Your task to perform on an android device: Add razer kraken to the cart on walmart, then select checkout. Image 0: 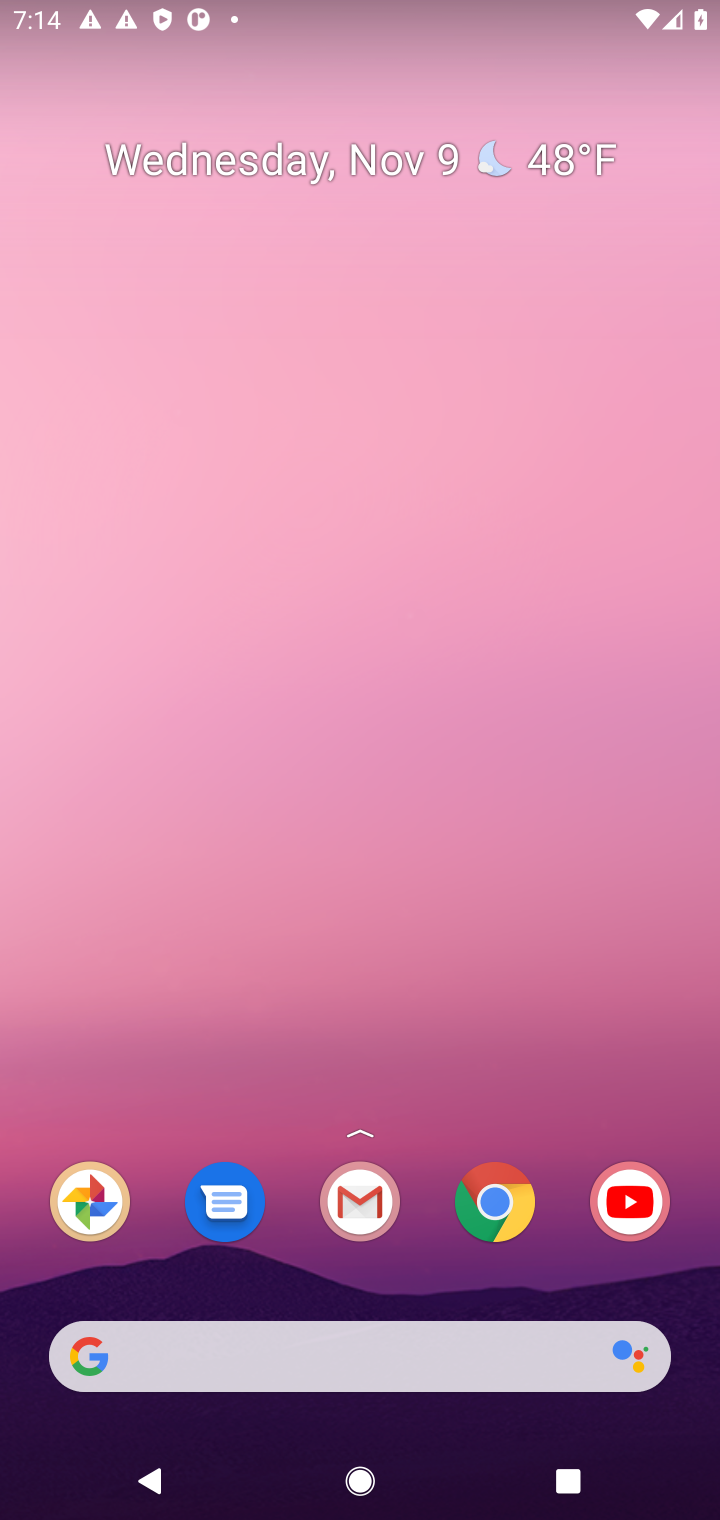
Step 0: click (501, 1219)
Your task to perform on an android device: Add razer kraken to the cart on walmart, then select checkout. Image 1: 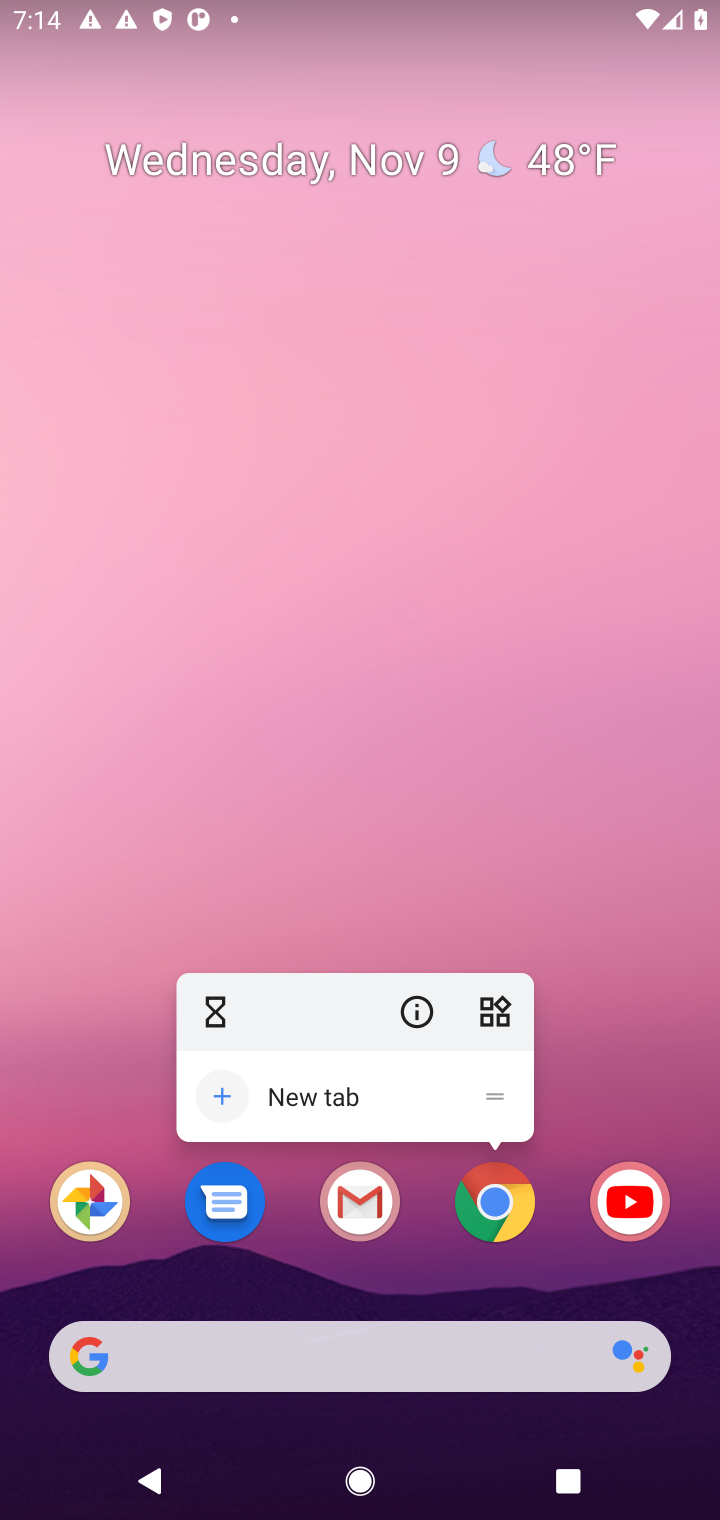
Step 1: click (507, 1211)
Your task to perform on an android device: Add razer kraken to the cart on walmart, then select checkout. Image 2: 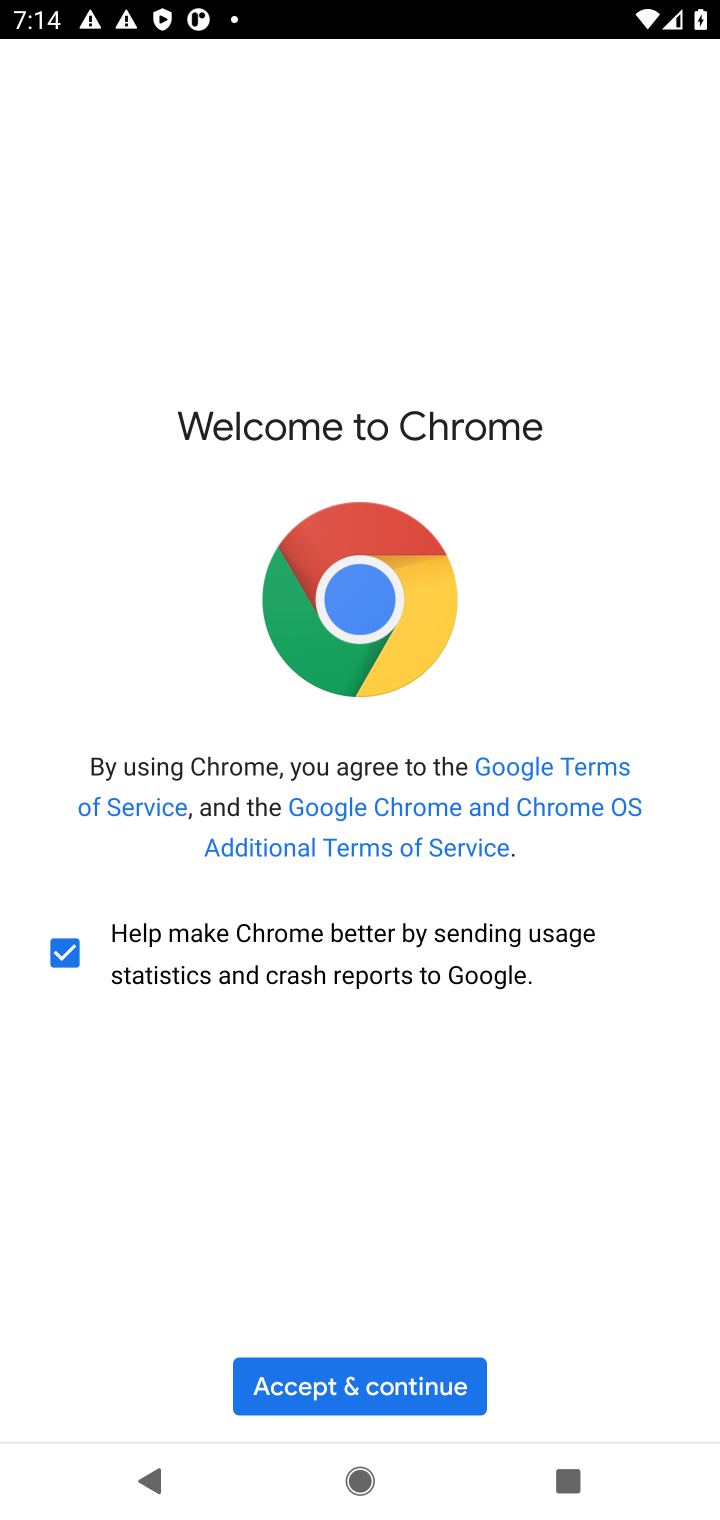
Step 2: click (318, 1401)
Your task to perform on an android device: Add razer kraken to the cart on walmart, then select checkout. Image 3: 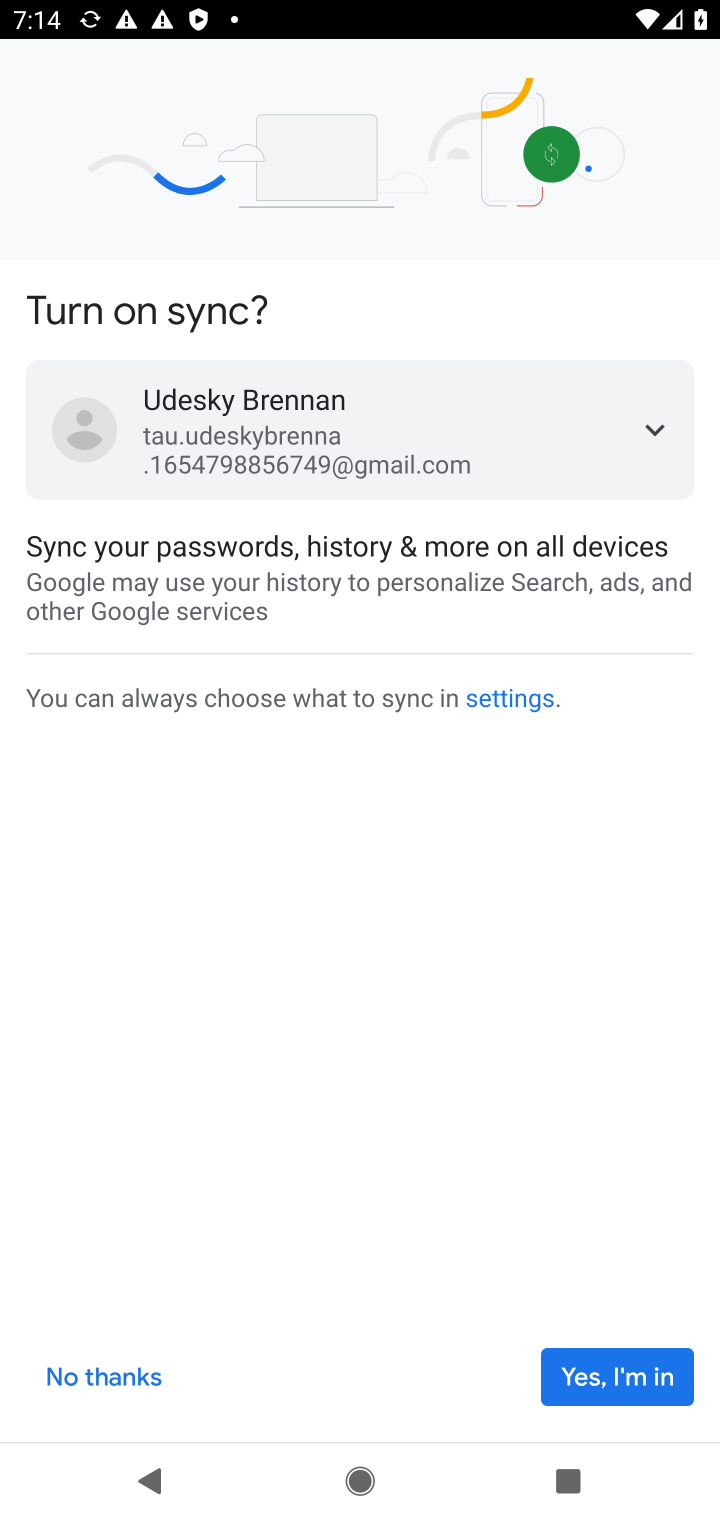
Step 3: click (605, 1367)
Your task to perform on an android device: Add razer kraken to the cart on walmart, then select checkout. Image 4: 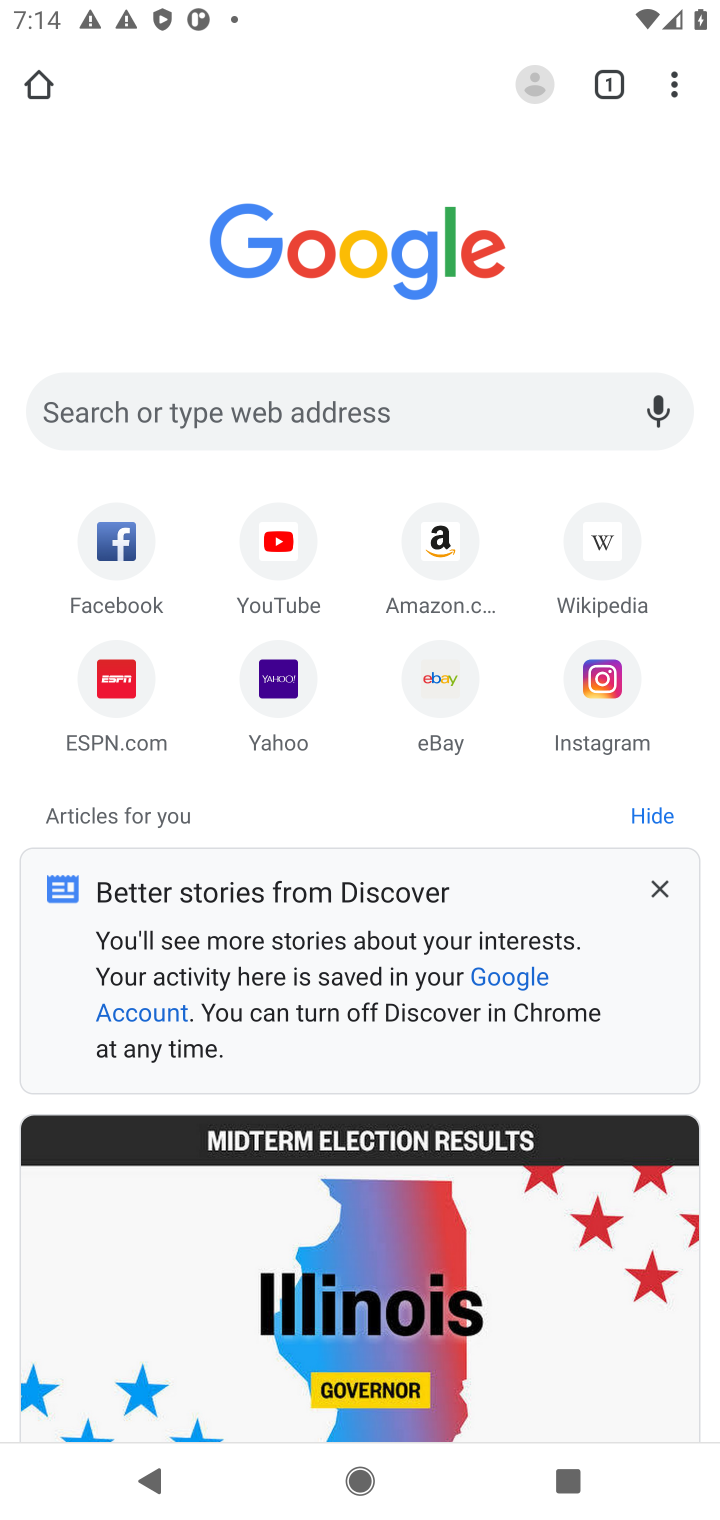
Step 4: click (293, 417)
Your task to perform on an android device: Add razer kraken to the cart on walmart, then select checkout. Image 5: 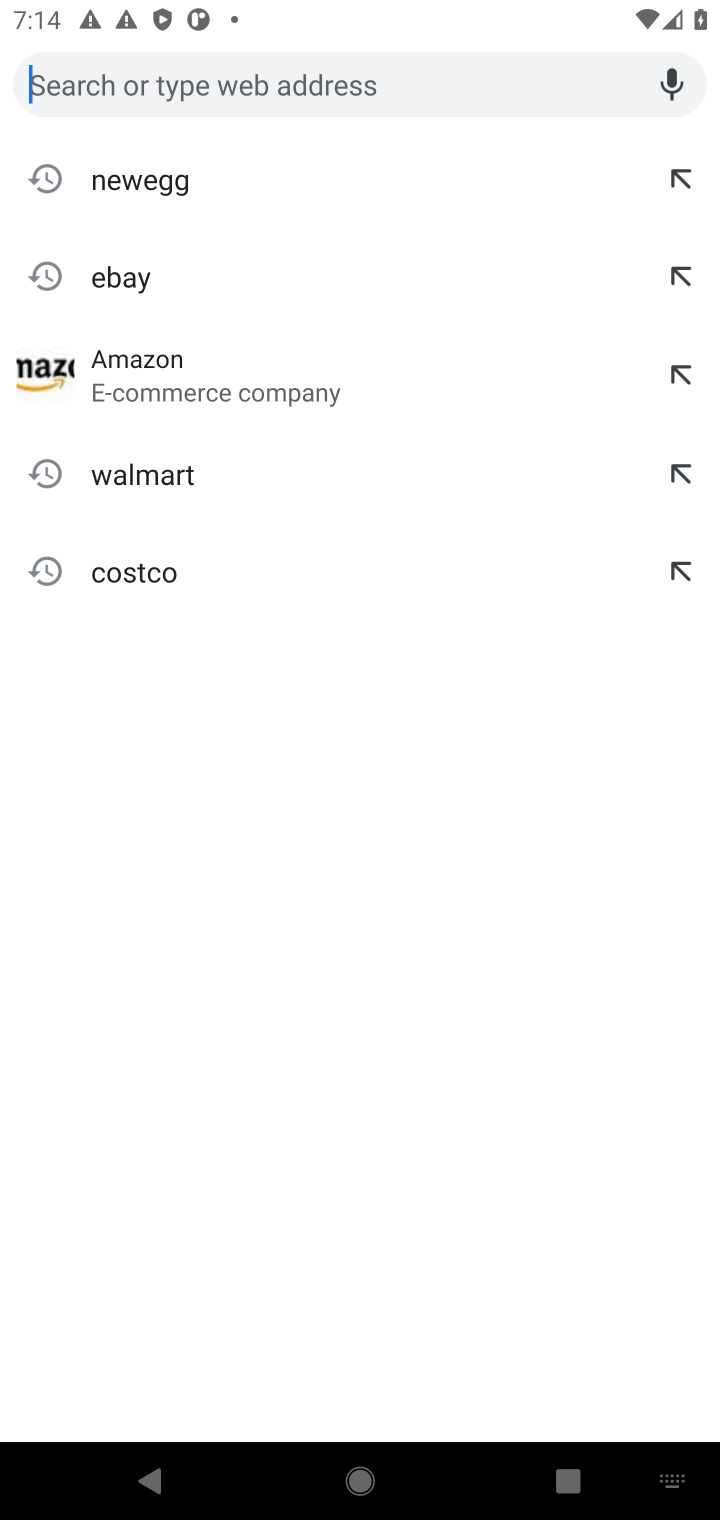
Step 5: click (140, 478)
Your task to perform on an android device: Add razer kraken to the cart on walmart, then select checkout. Image 6: 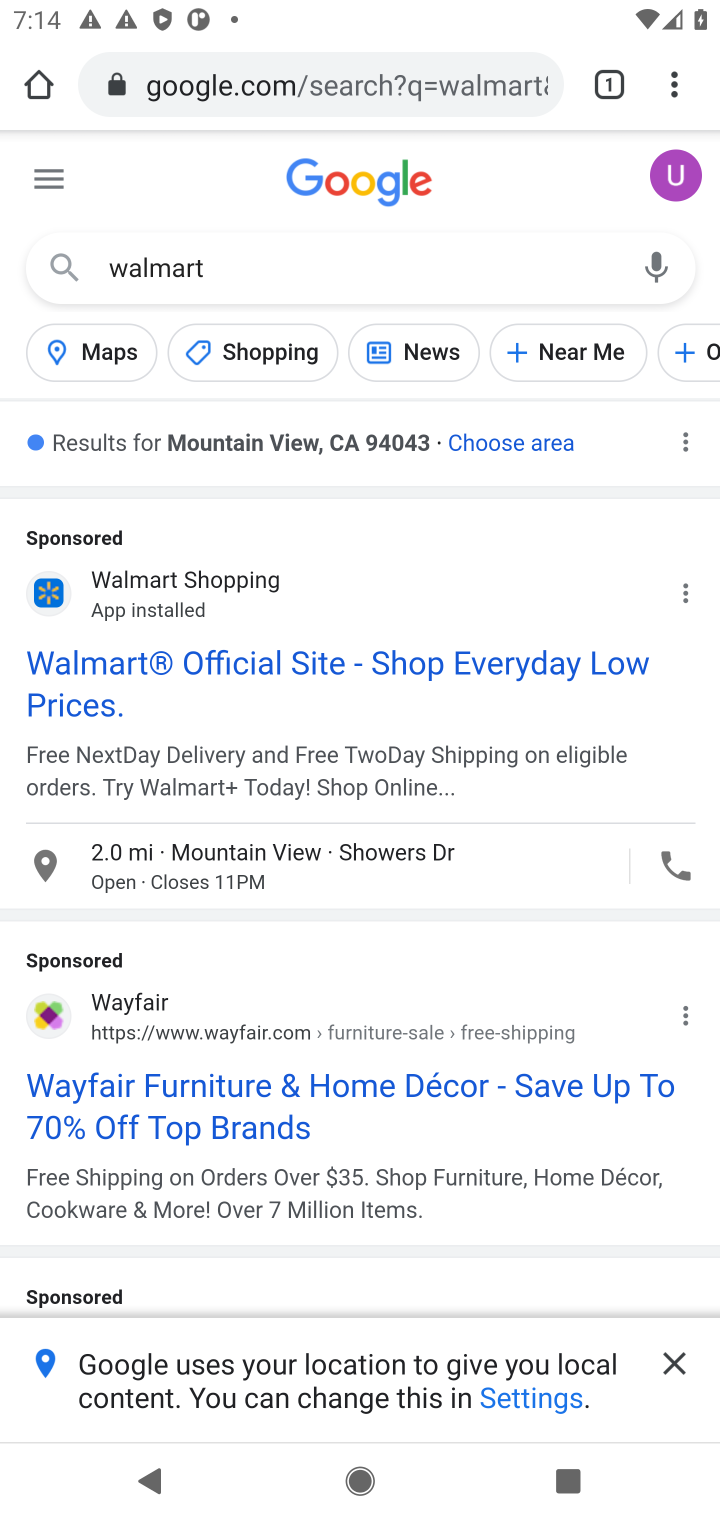
Step 6: drag from (214, 1035) to (407, 583)
Your task to perform on an android device: Add razer kraken to the cart on walmart, then select checkout. Image 7: 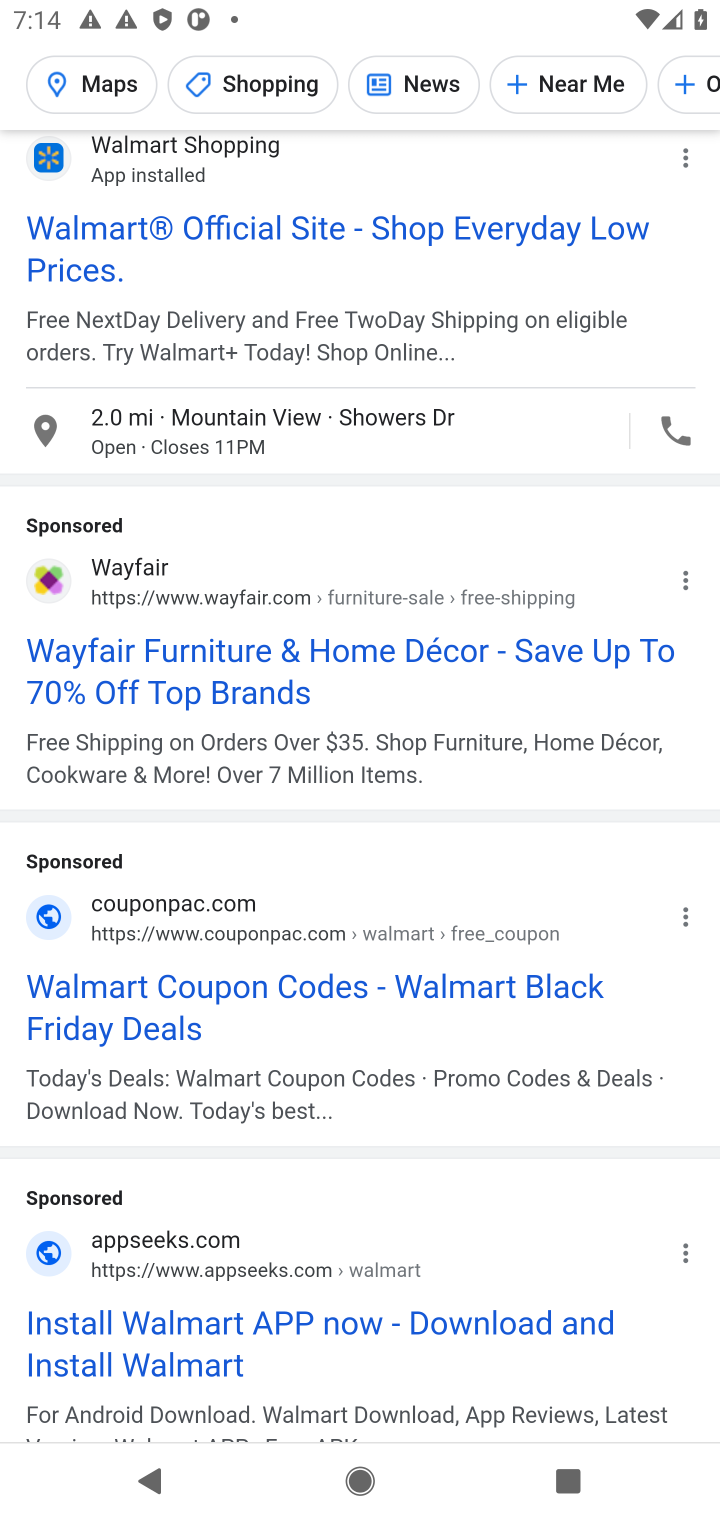
Step 7: drag from (288, 1212) to (469, 758)
Your task to perform on an android device: Add razer kraken to the cart on walmart, then select checkout. Image 8: 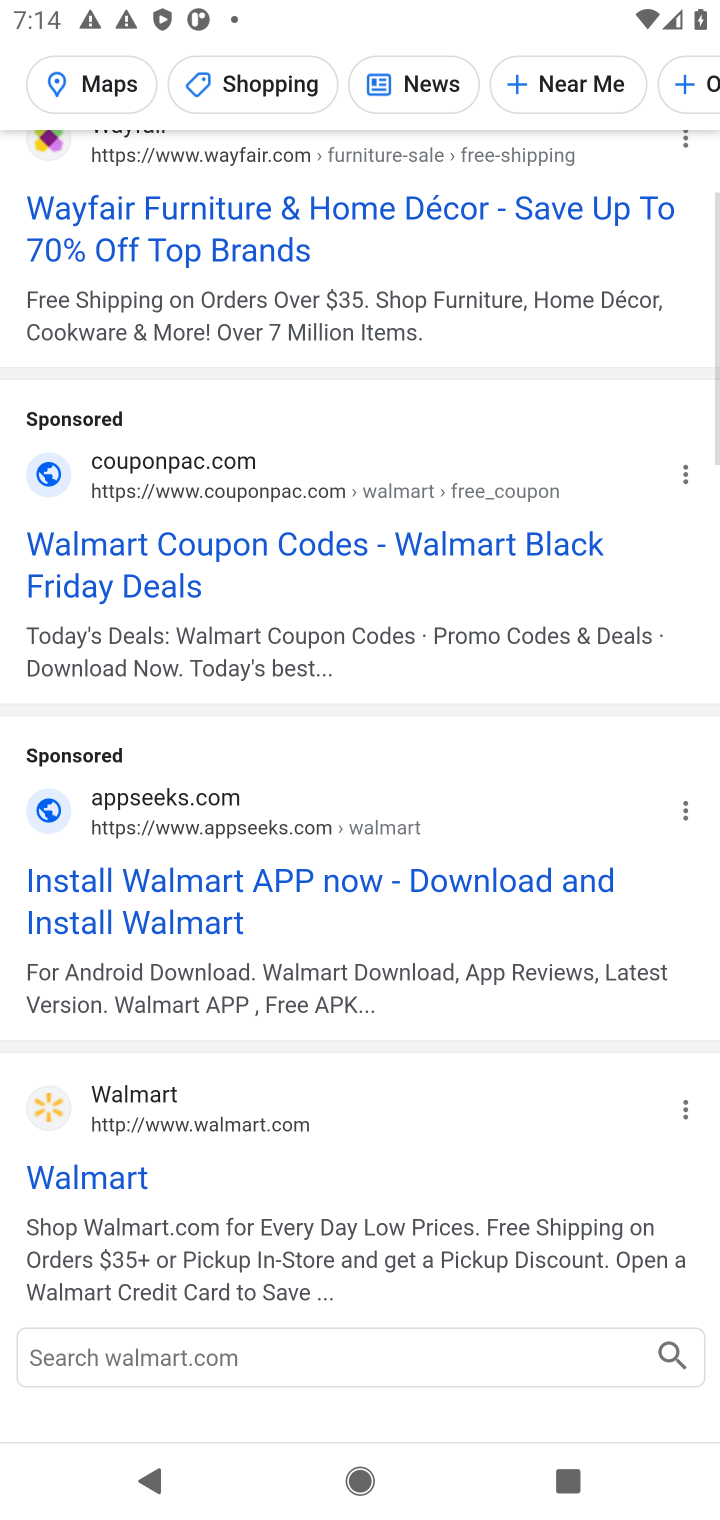
Step 8: click (110, 1165)
Your task to perform on an android device: Add razer kraken to the cart on walmart, then select checkout. Image 9: 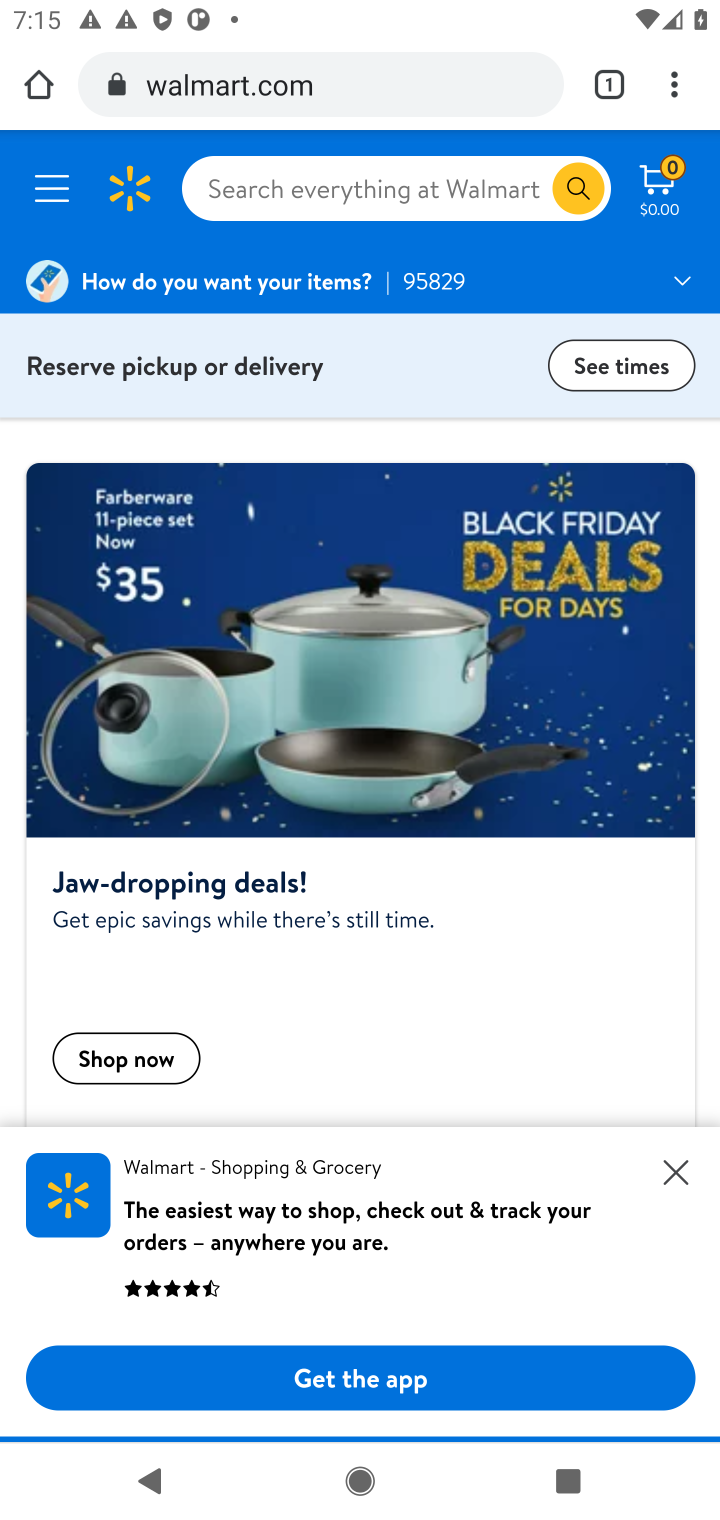
Step 9: click (362, 192)
Your task to perform on an android device: Add razer kraken to the cart on walmart, then select checkout. Image 10: 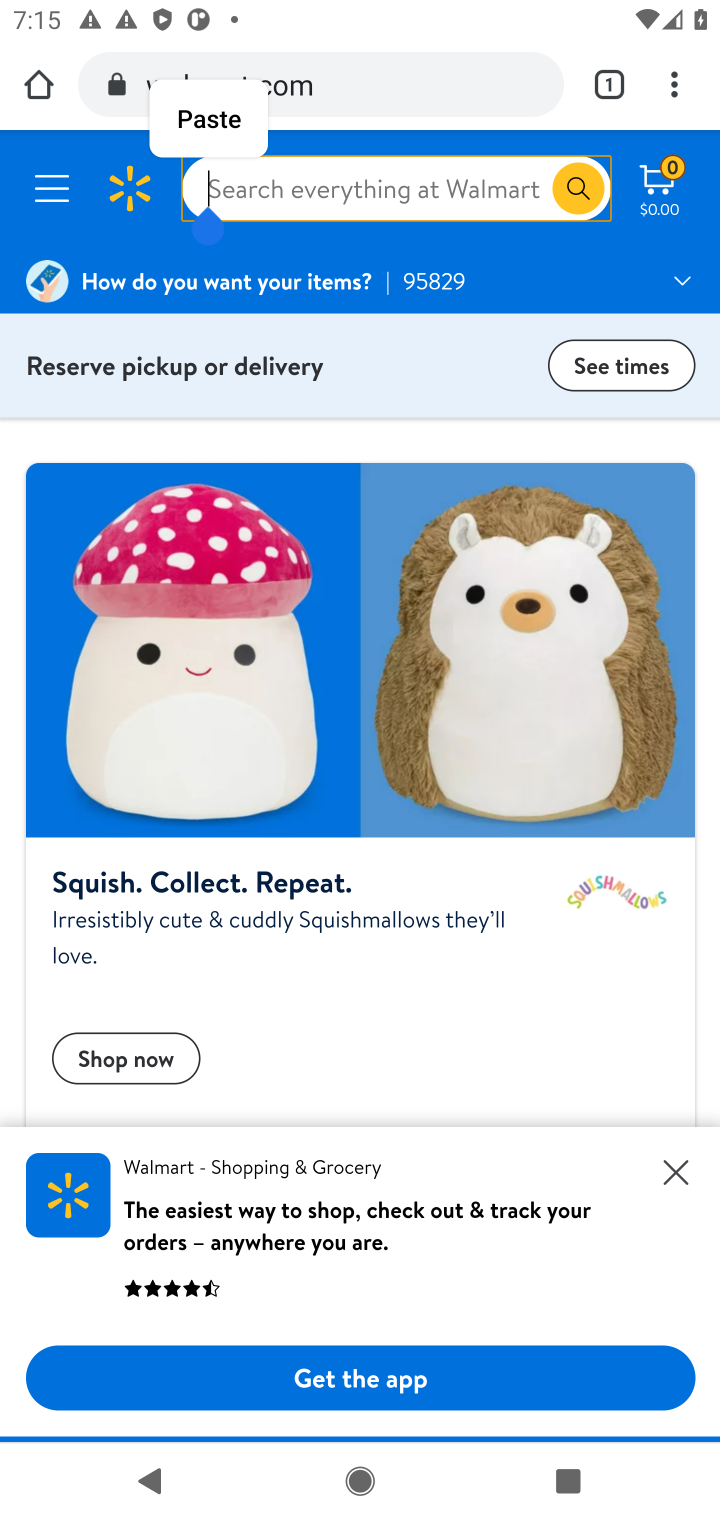
Step 10: press enter
Your task to perform on an android device: Add razer kraken to the cart on walmart, then select checkout. Image 11: 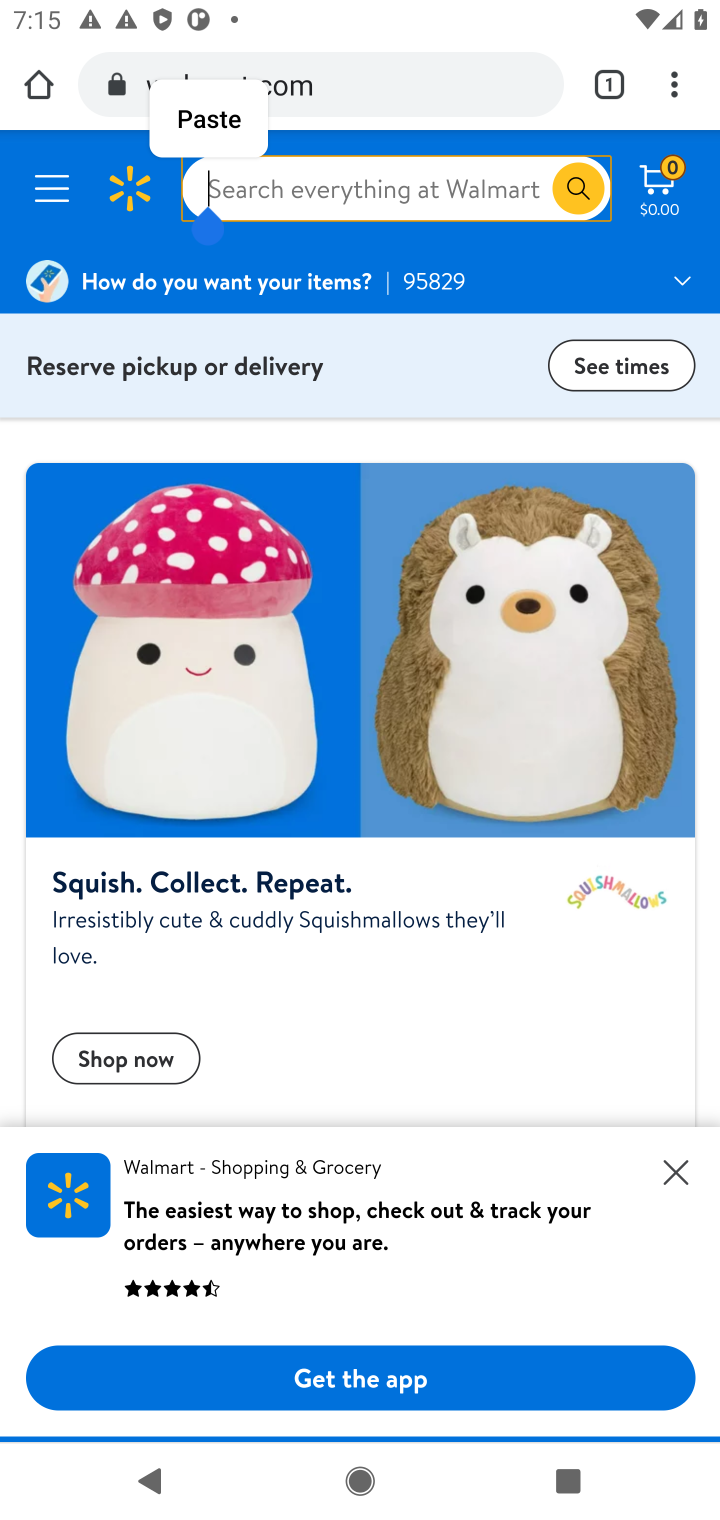
Step 11: type " razer kraken"
Your task to perform on an android device: Add razer kraken to the cart on walmart, then select checkout. Image 12: 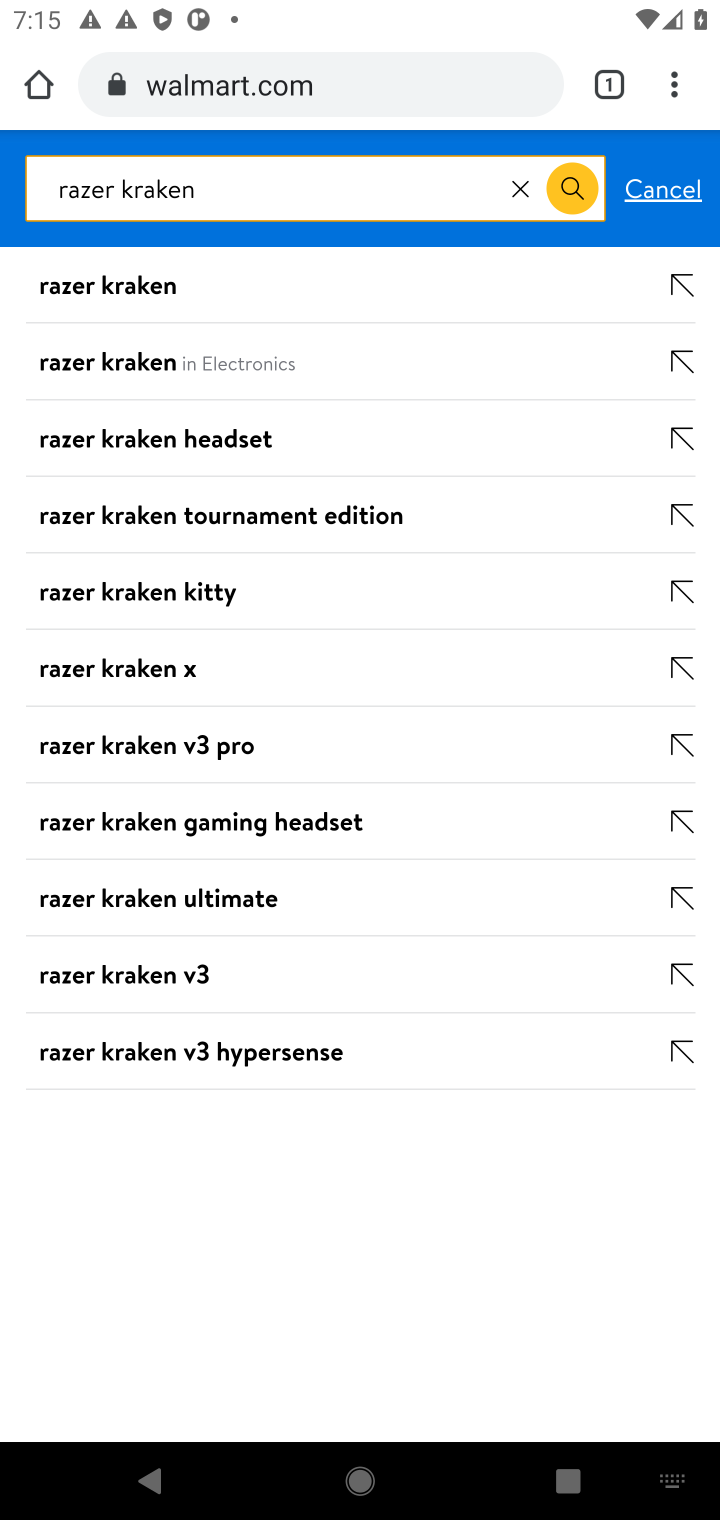
Step 12: press enter
Your task to perform on an android device: Add razer kraken to the cart on walmart, then select checkout. Image 13: 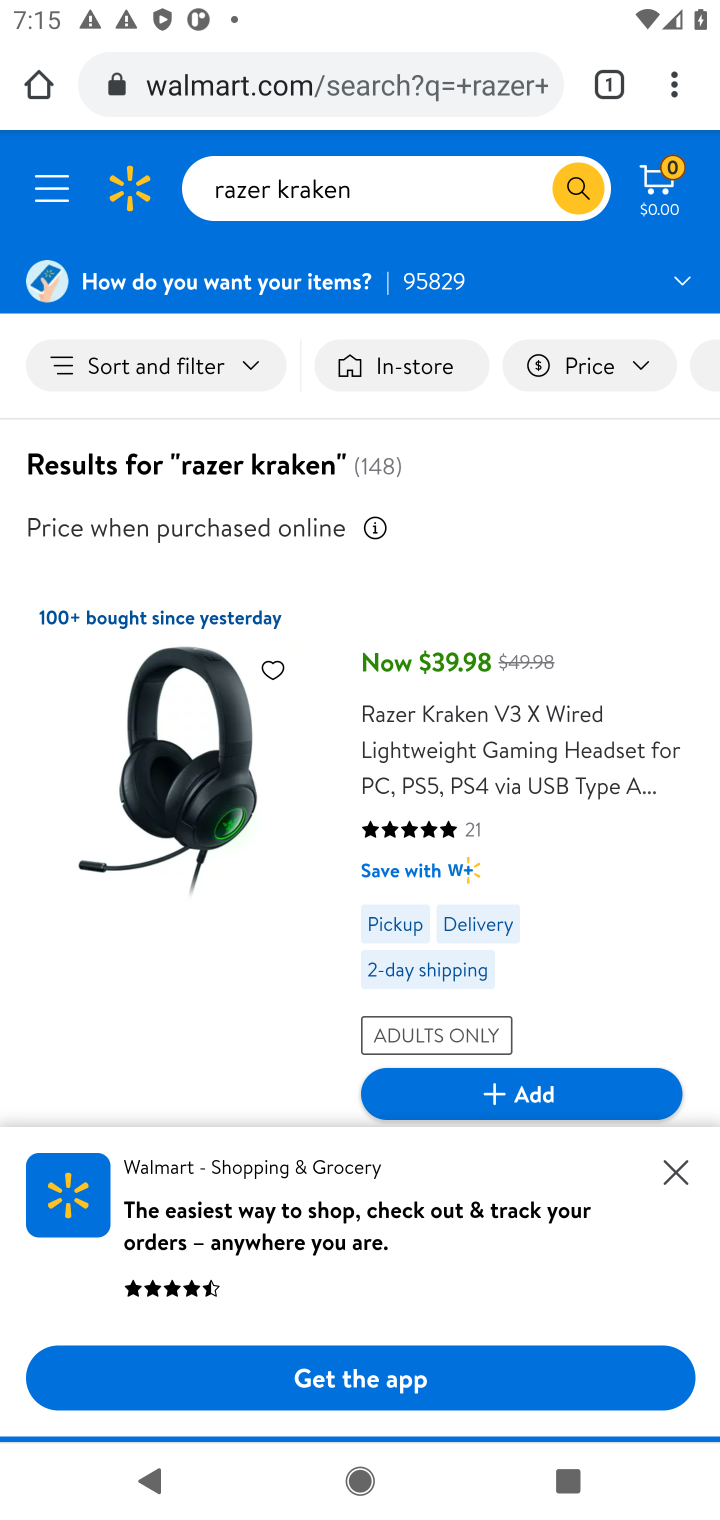
Step 13: drag from (188, 982) to (379, 565)
Your task to perform on an android device: Add razer kraken to the cart on walmart, then select checkout. Image 14: 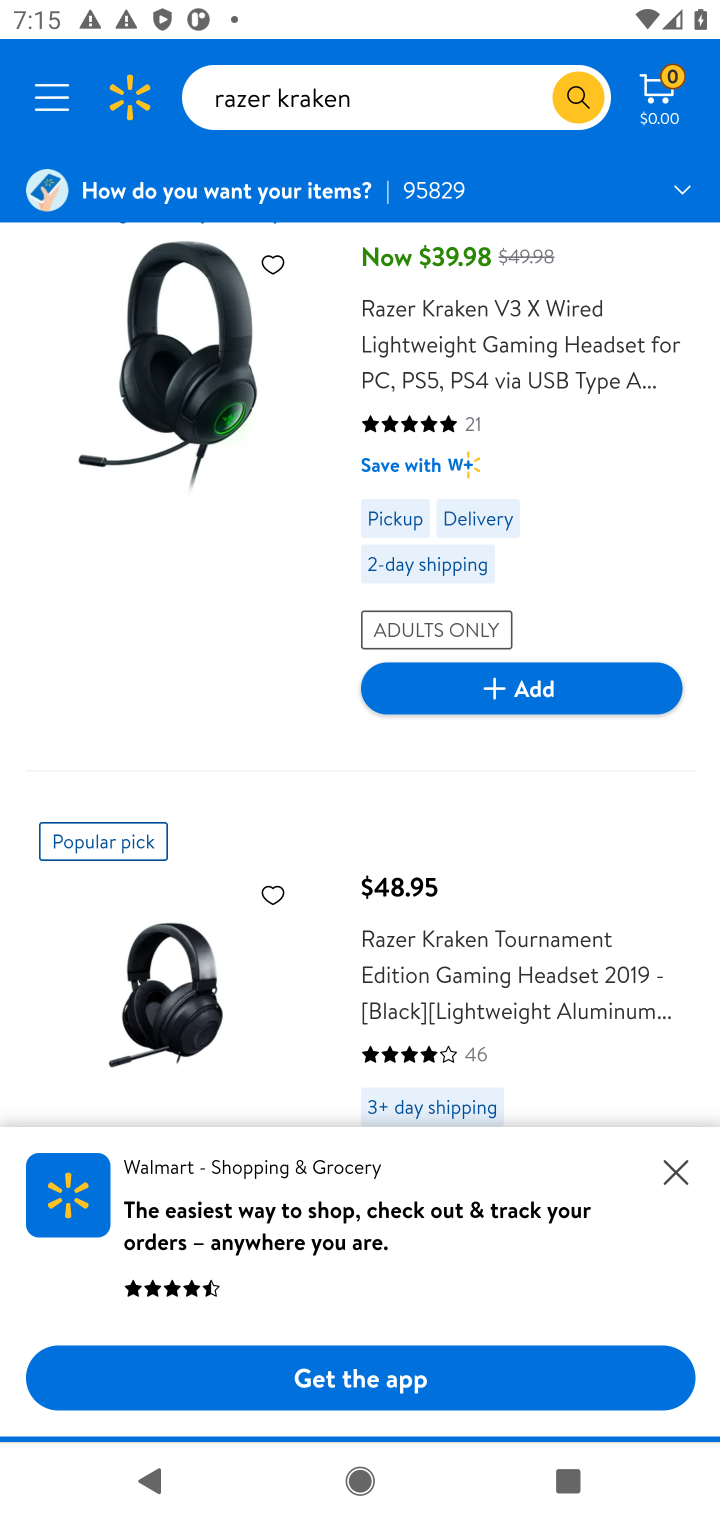
Step 14: click (544, 688)
Your task to perform on an android device: Add razer kraken to the cart on walmart, then select checkout. Image 15: 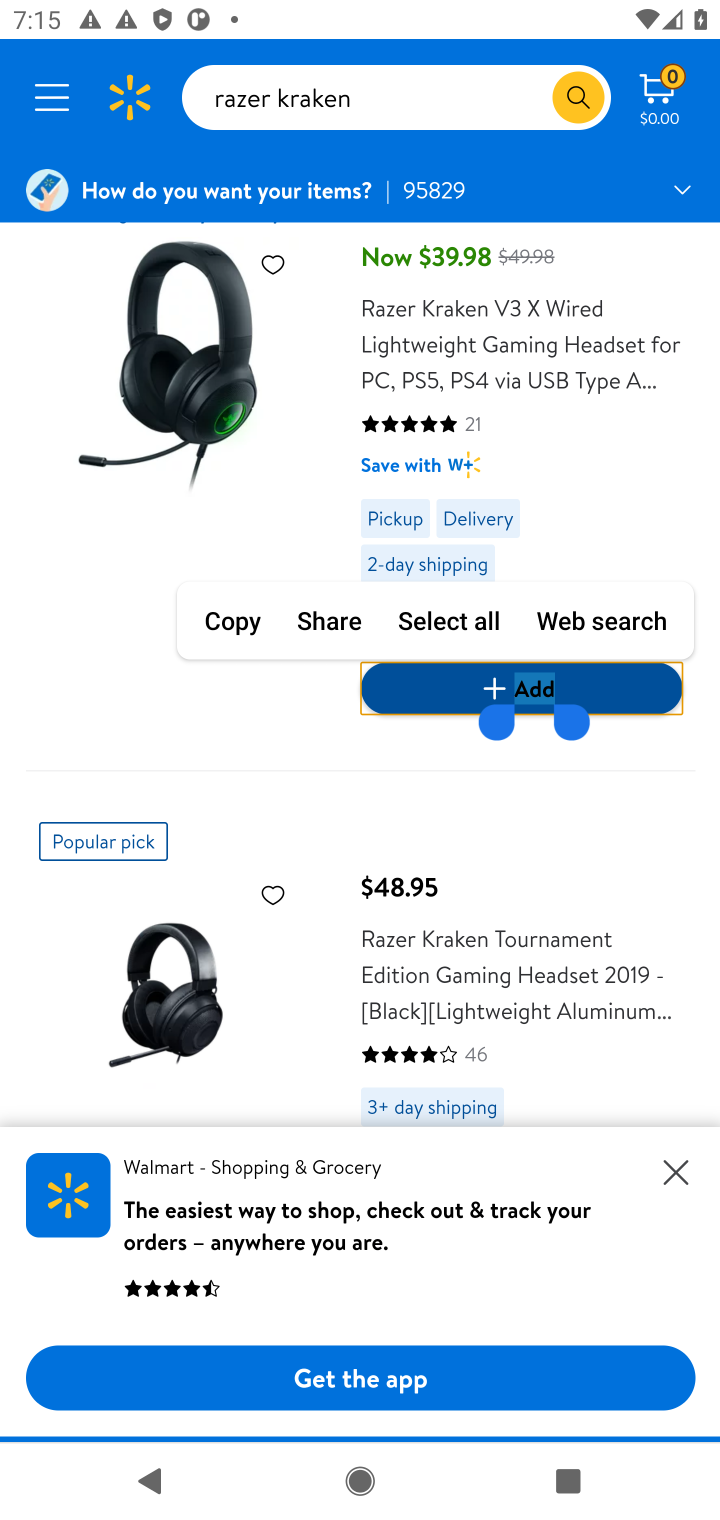
Step 15: click (526, 682)
Your task to perform on an android device: Add razer kraken to the cart on walmart, then select checkout. Image 16: 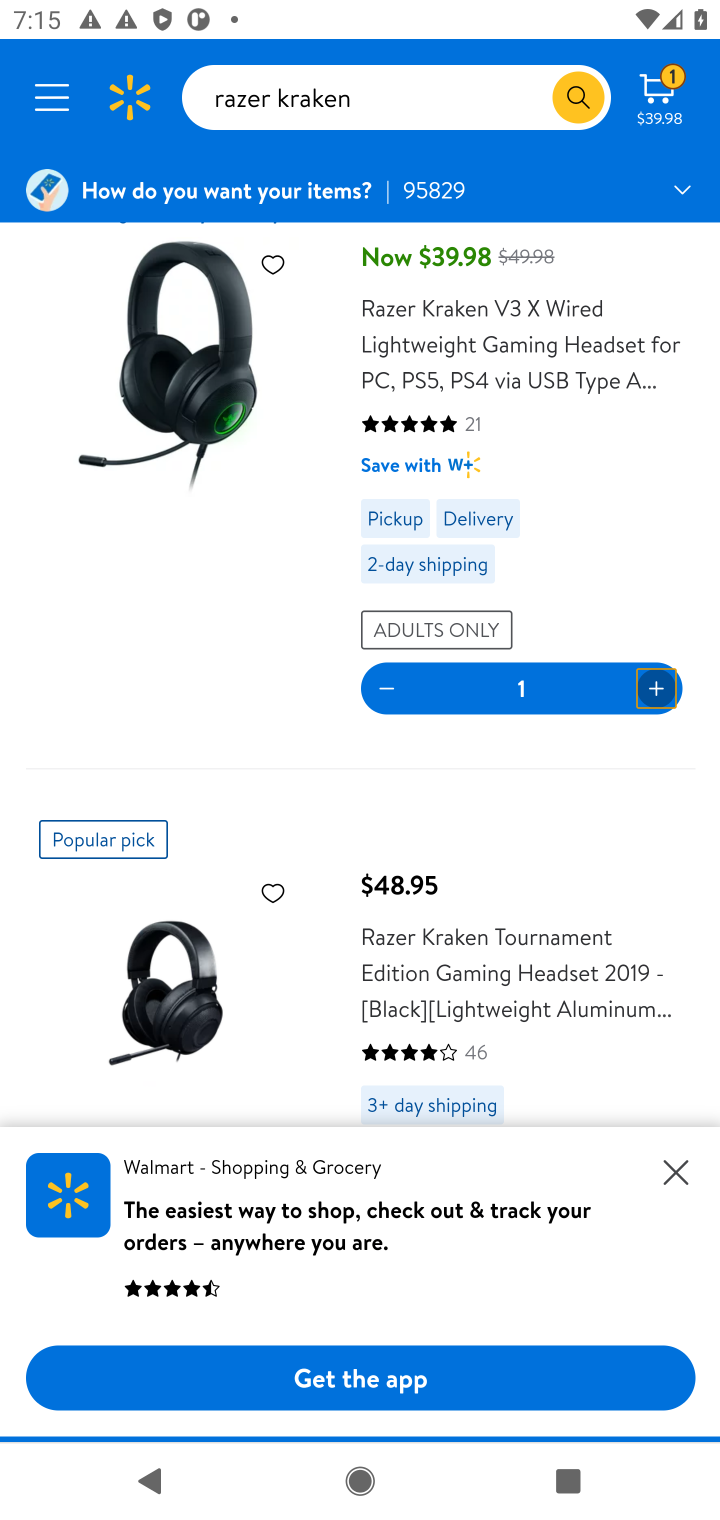
Step 16: click (668, 91)
Your task to perform on an android device: Add razer kraken to the cart on walmart, then select checkout. Image 17: 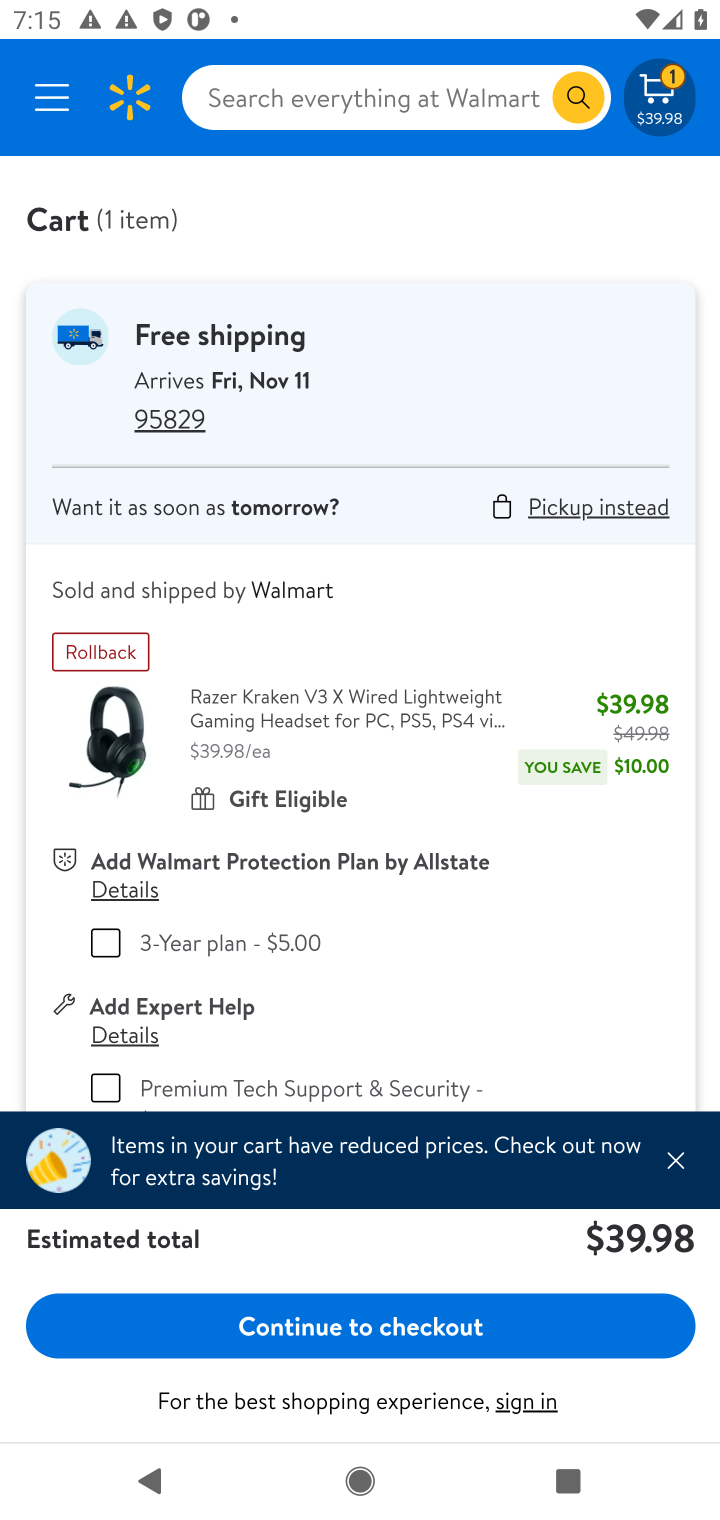
Step 17: click (347, 1333)
Your task to perform on an android device: Add razer kraken to the cart on walmart, then select checkout. Image 18: 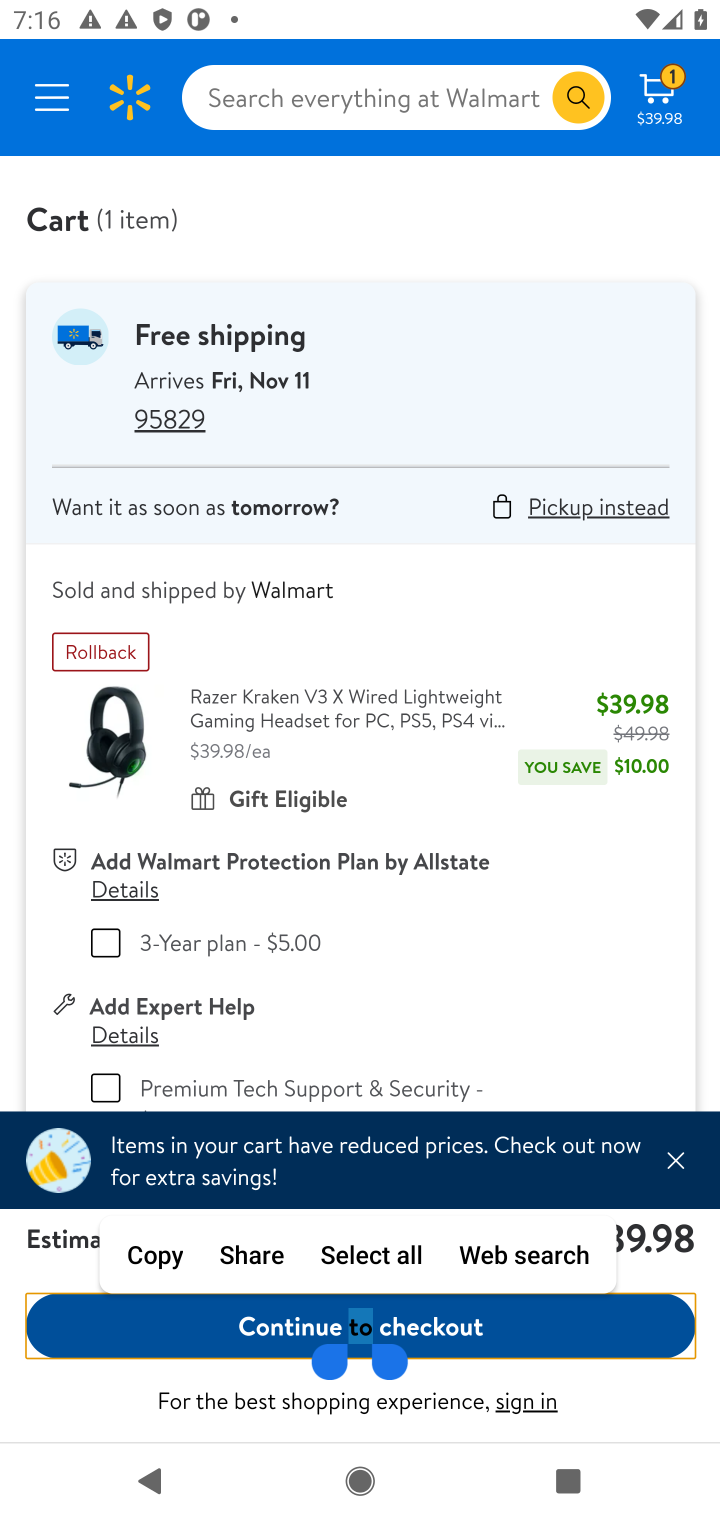
Step 18: click (429, 1333)
Your task to perform on an android device: Add razer kraken to the cart on walmart, then select checkout. Image 19: 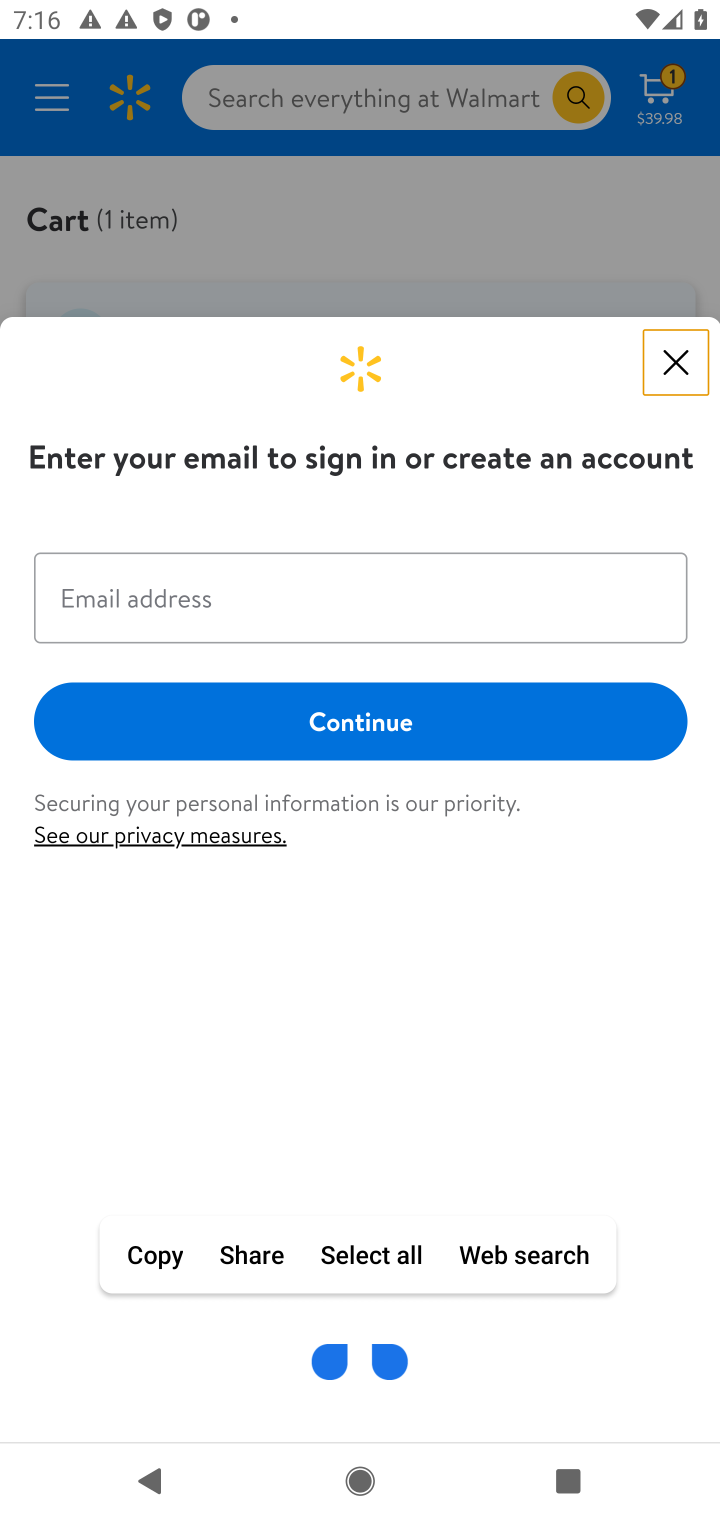
Step 19: task complete